Your task to perform on an android device: Search for "macbook air" on newegg, select the first entry, and add it to the cart. Image 0: 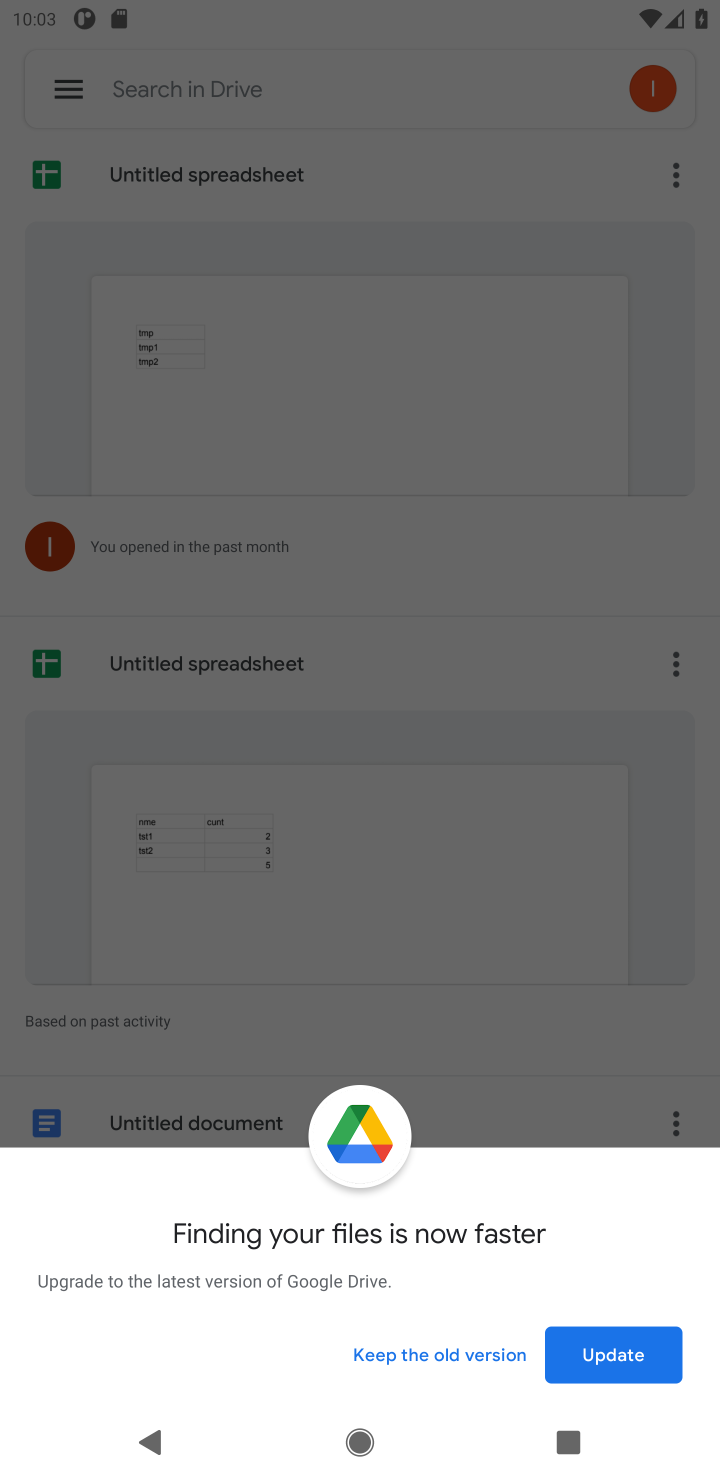
Step 0: press home button
Your task to perform on an android device: Search for "macbook air" on newegg, select the first entry, and add it to the cart. Image 1: 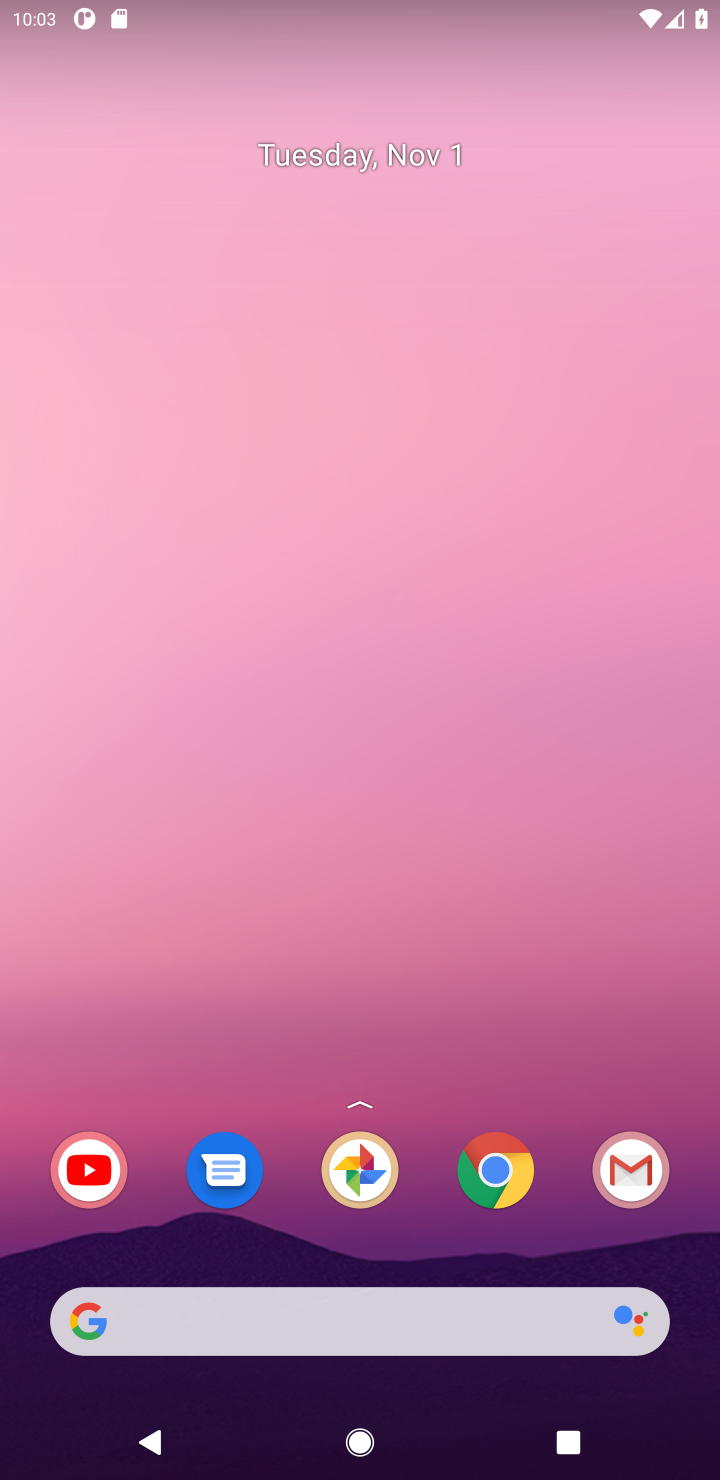
Step 1: click (510, 1180)
Your task to perform on an android device: Search for "macbook air" on newegg, select the first entry, and add it to the cart. Image 2: 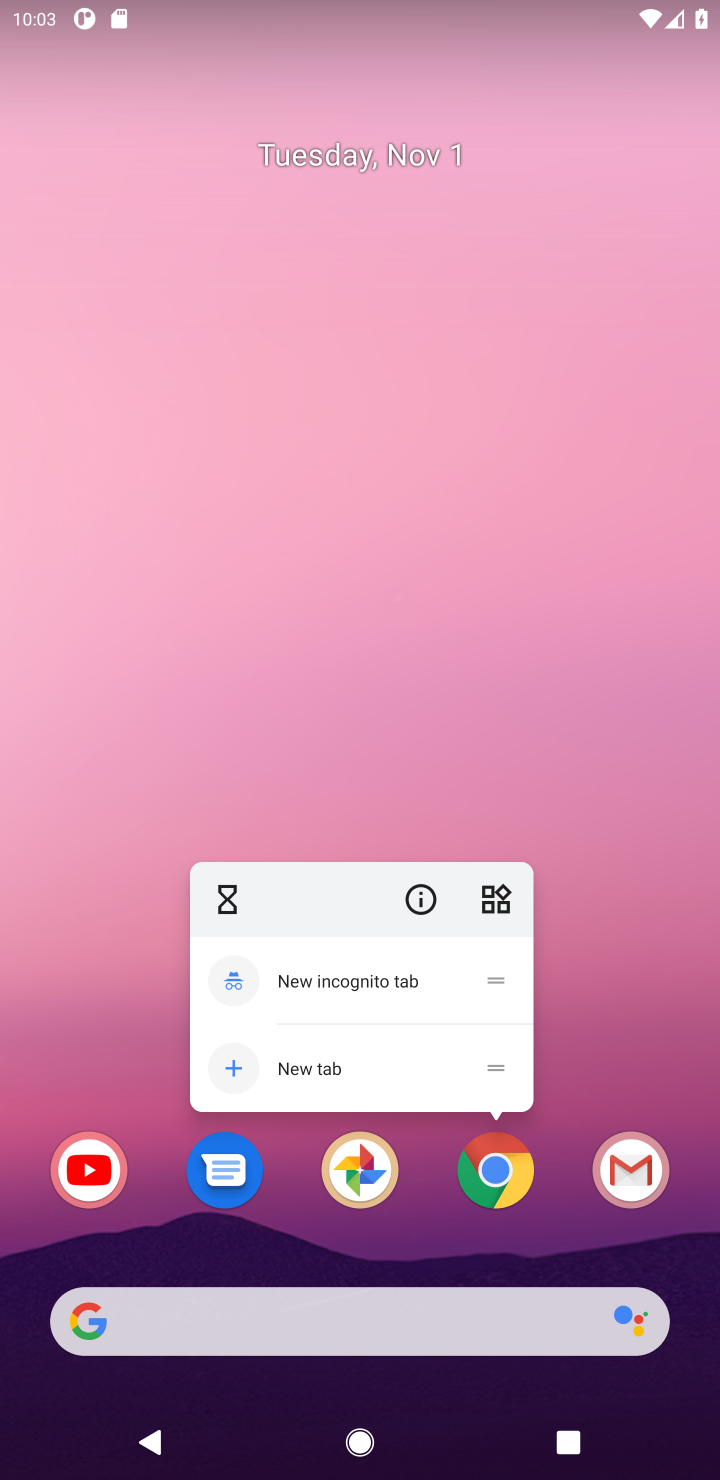
Step 2: click (490, 1181)
Your task to perform on an android device: Search for "macbook air" on newegg, select the first entry, and add it to the cart. Image 3: 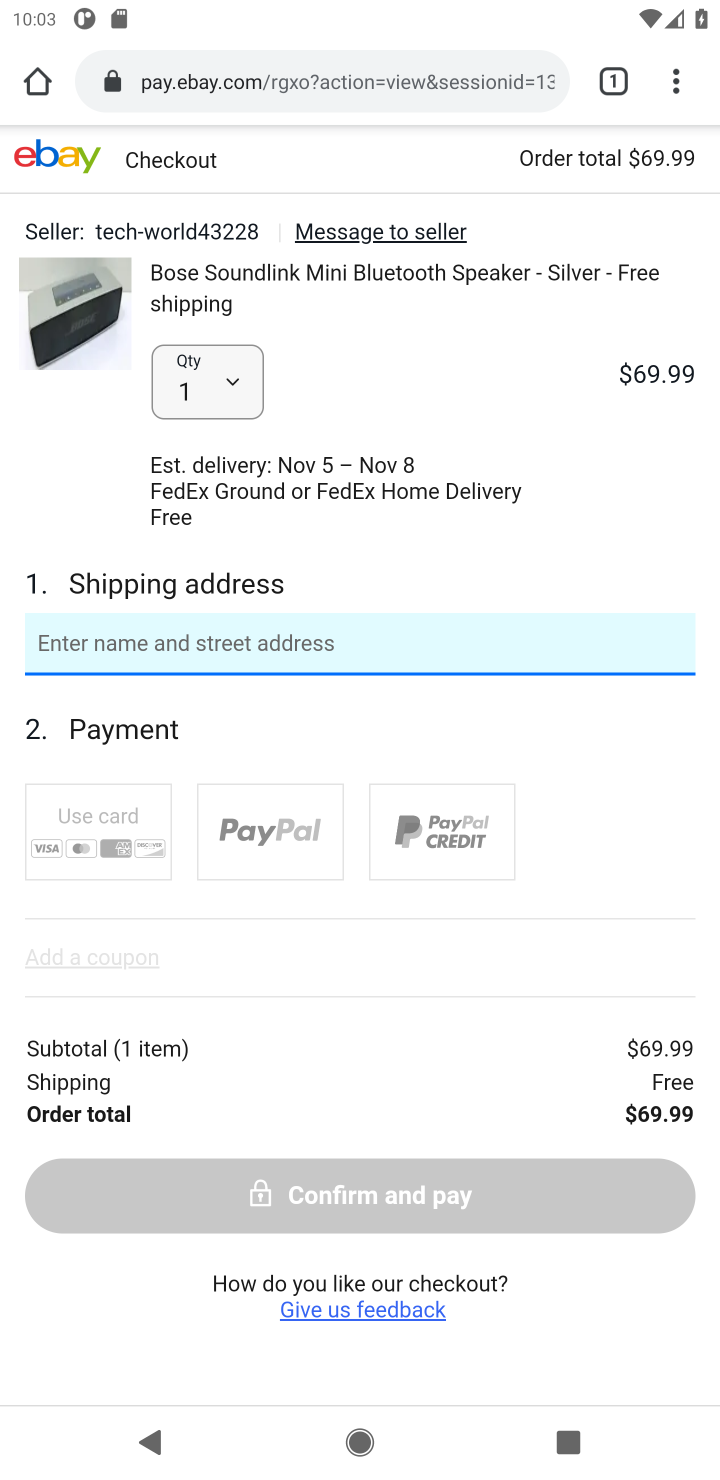
Step 3: click (258, 99)
Your task to perform on an android device: Search for "macbook air" on newegg, select the first entry, and add it to the cart. Image 4: 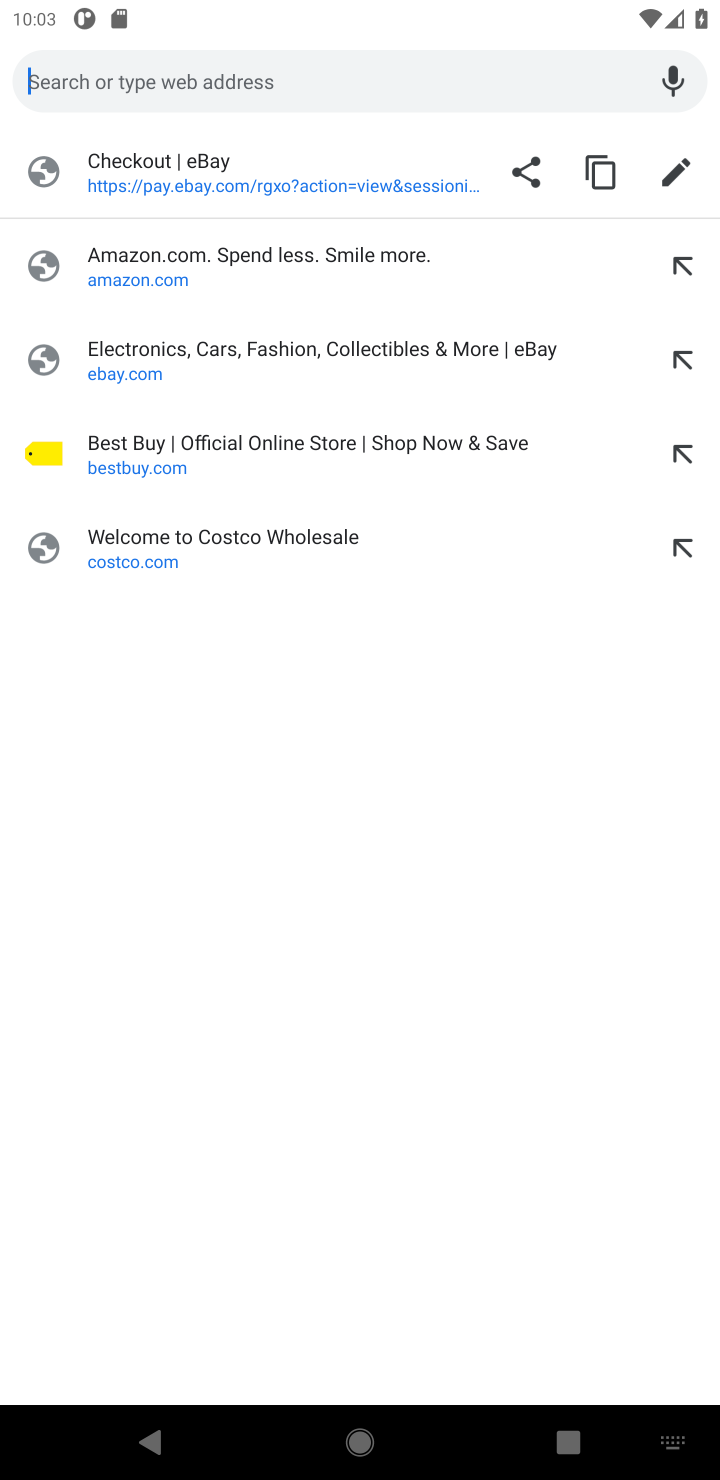
Step 4: type "newegg"
Your task to perform on an android device: Search for "macbook air" on newegg, select the first entry, and add it to the cart. Image 5: 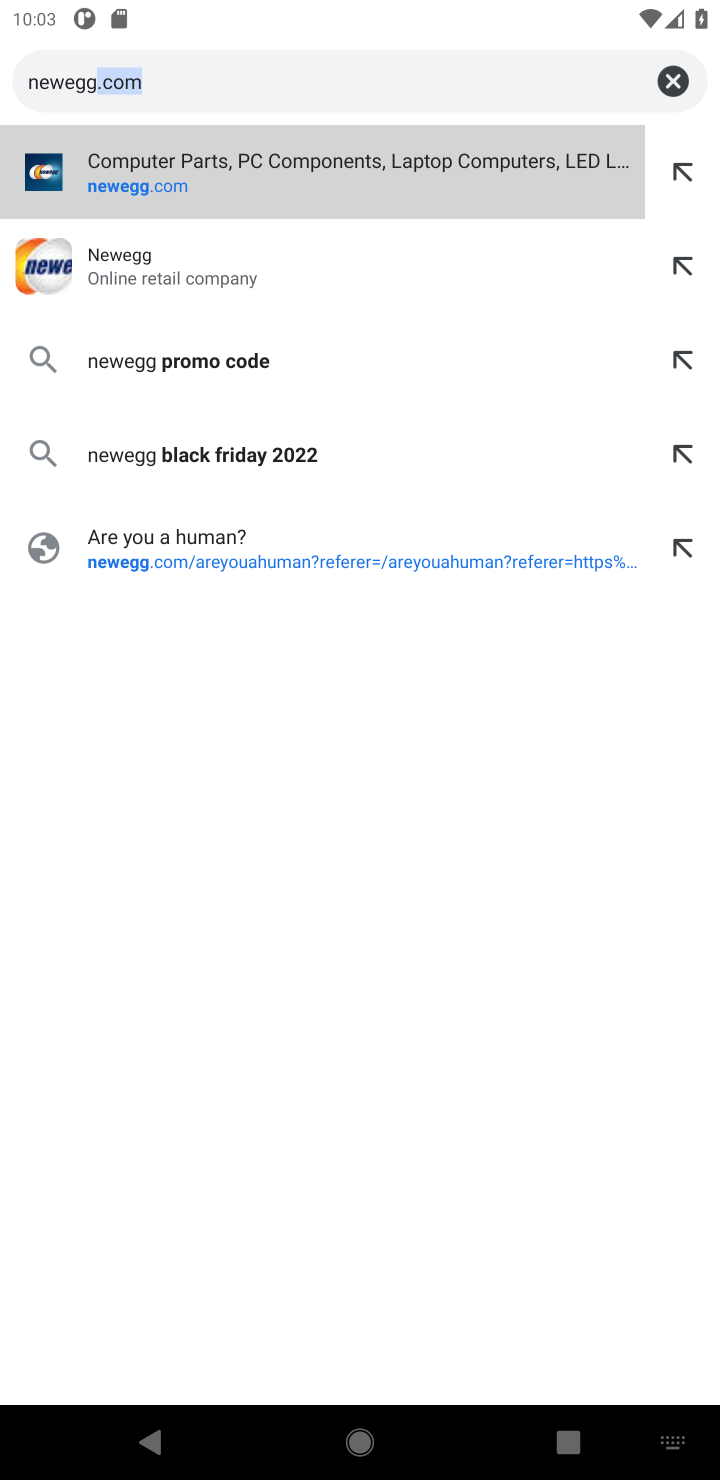
Step 5: press enter
Your task to perform on an android device: Search for "macbook air" on newegg, select the first entry, and add it to the cart. Image 6: 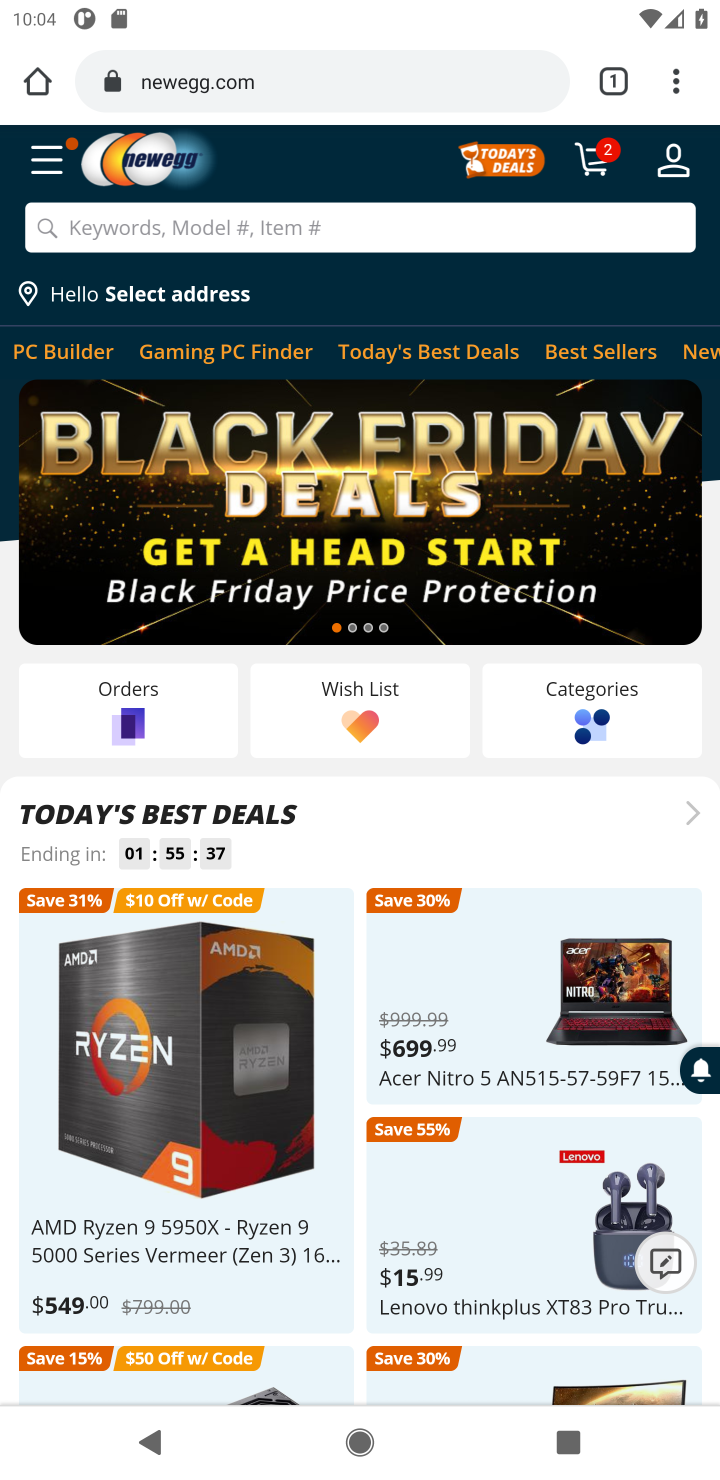
Step 6: click (398, 219)
Your task to perform on an android device: Search for "macbook air" on newegg, select the first entry, and add it to the cart. Image 7: 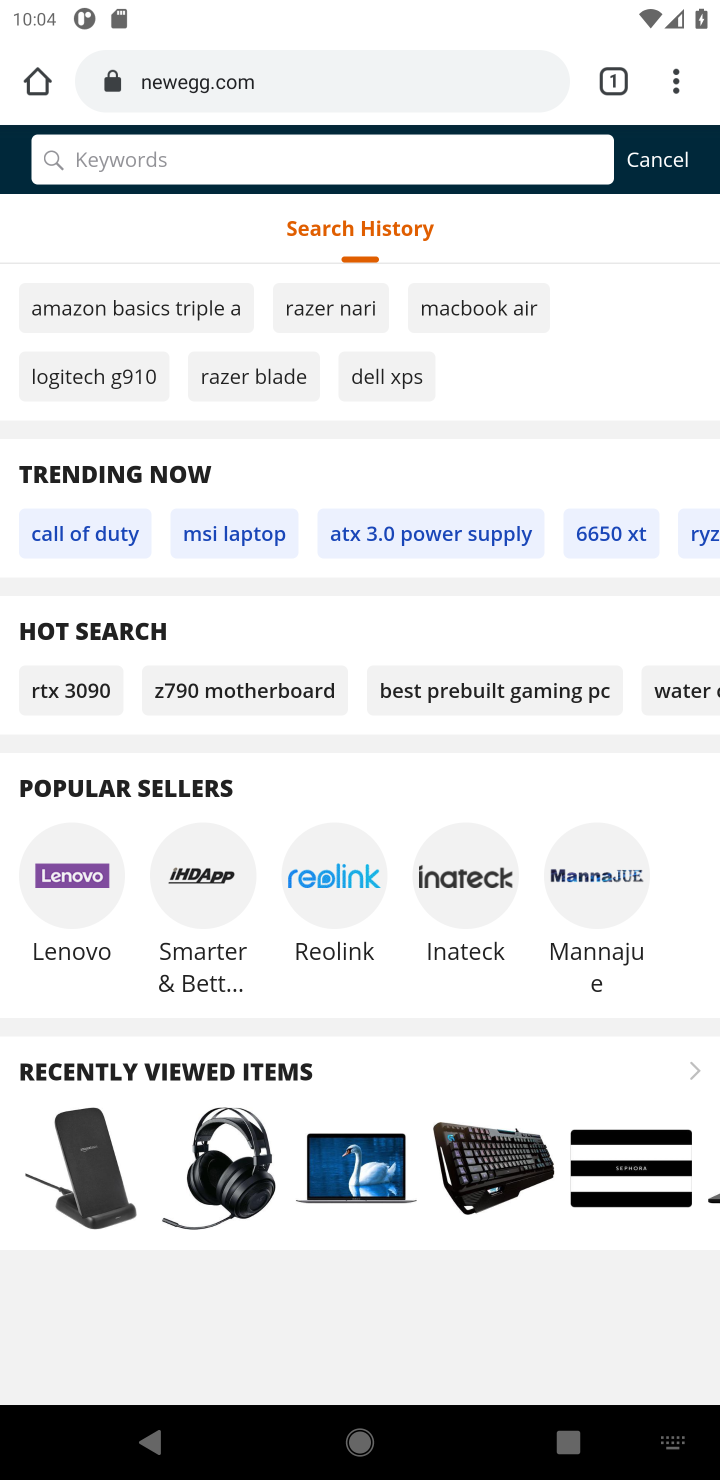
Step 7: type "macbook air"
Your task to perform on an android device: Search for "macbook air" on newegg, select the first entry, and add it to the cart. Image 8: 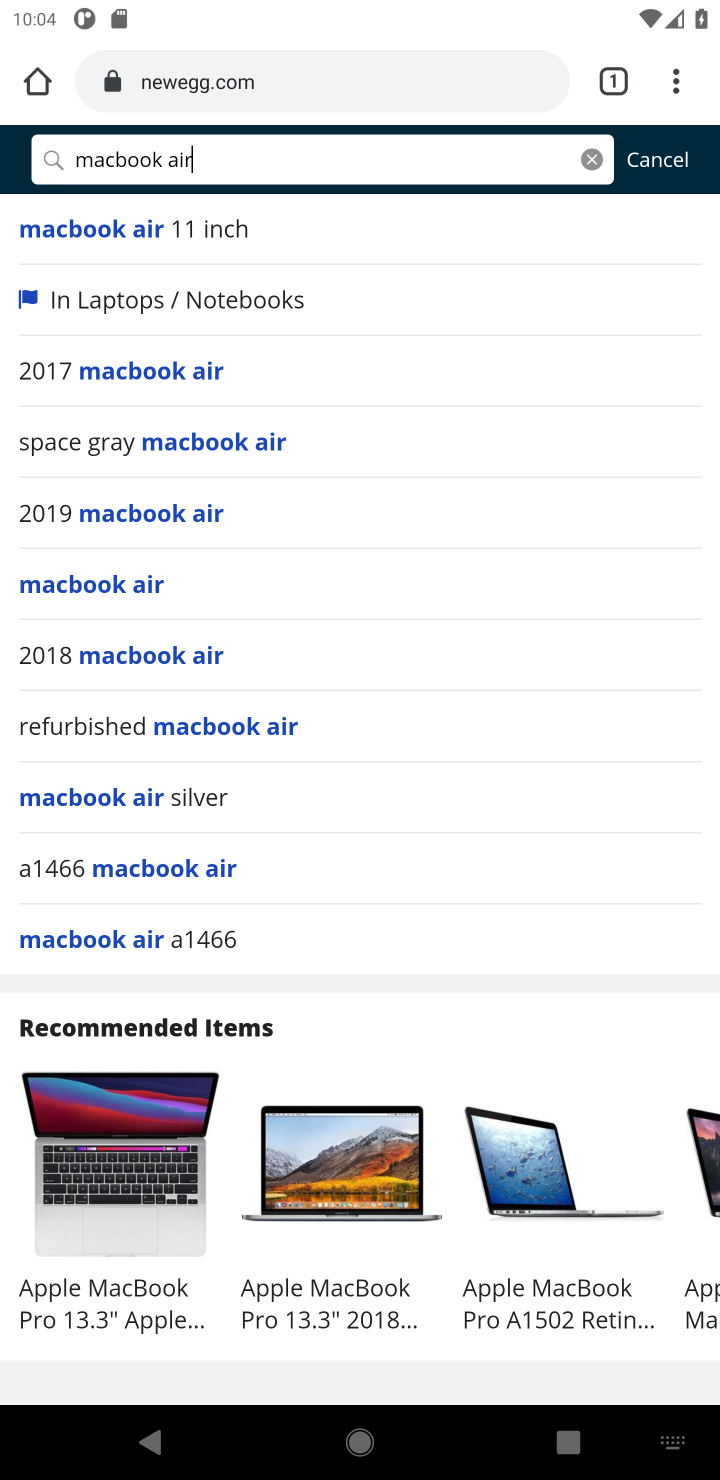
Step 8: press enter
Your task to perform on an android device: Search for "macbook air" on newegg, select the first entry, and add it to the cart. Image 9: 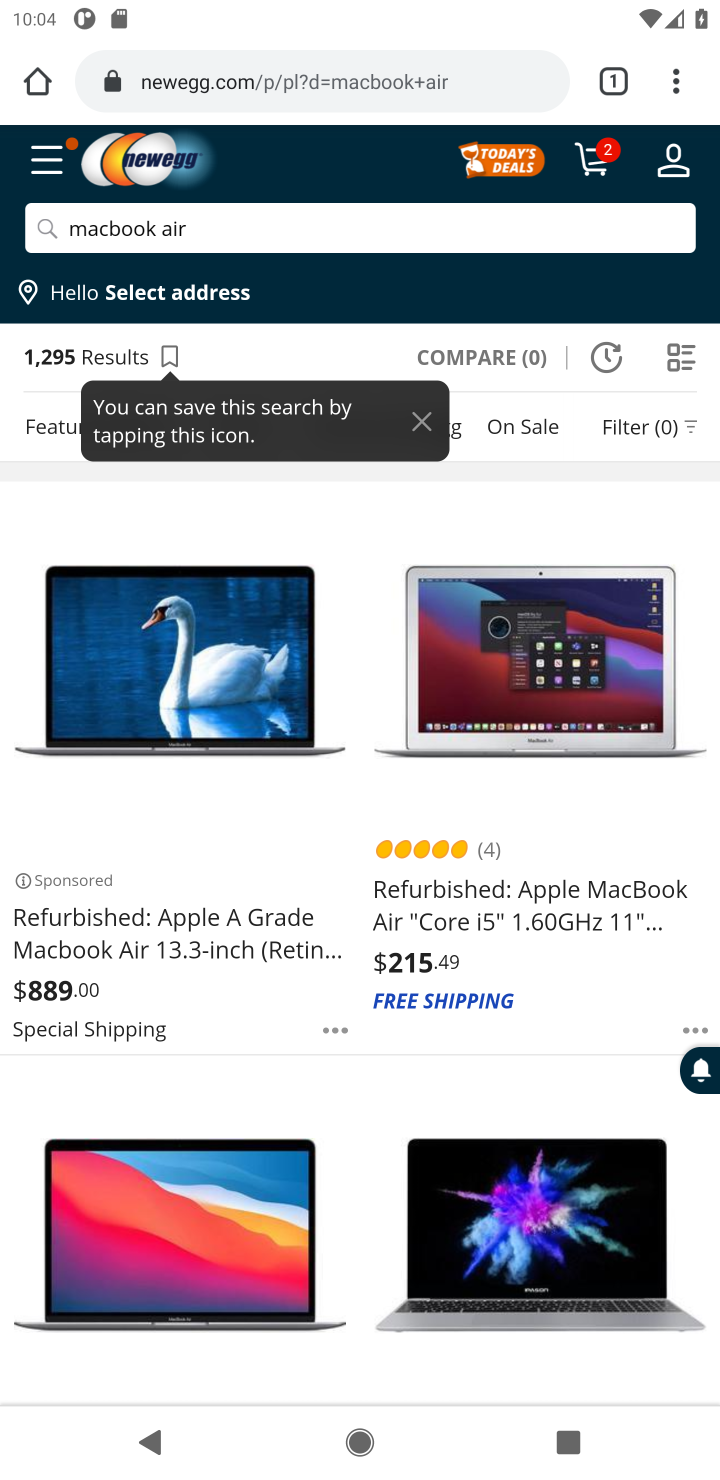
Step 9: click (201, 935)
Your task to perform on an android device: Search for "macbook air" on newegg, select the first entry, and add it to the cart. Image 10: 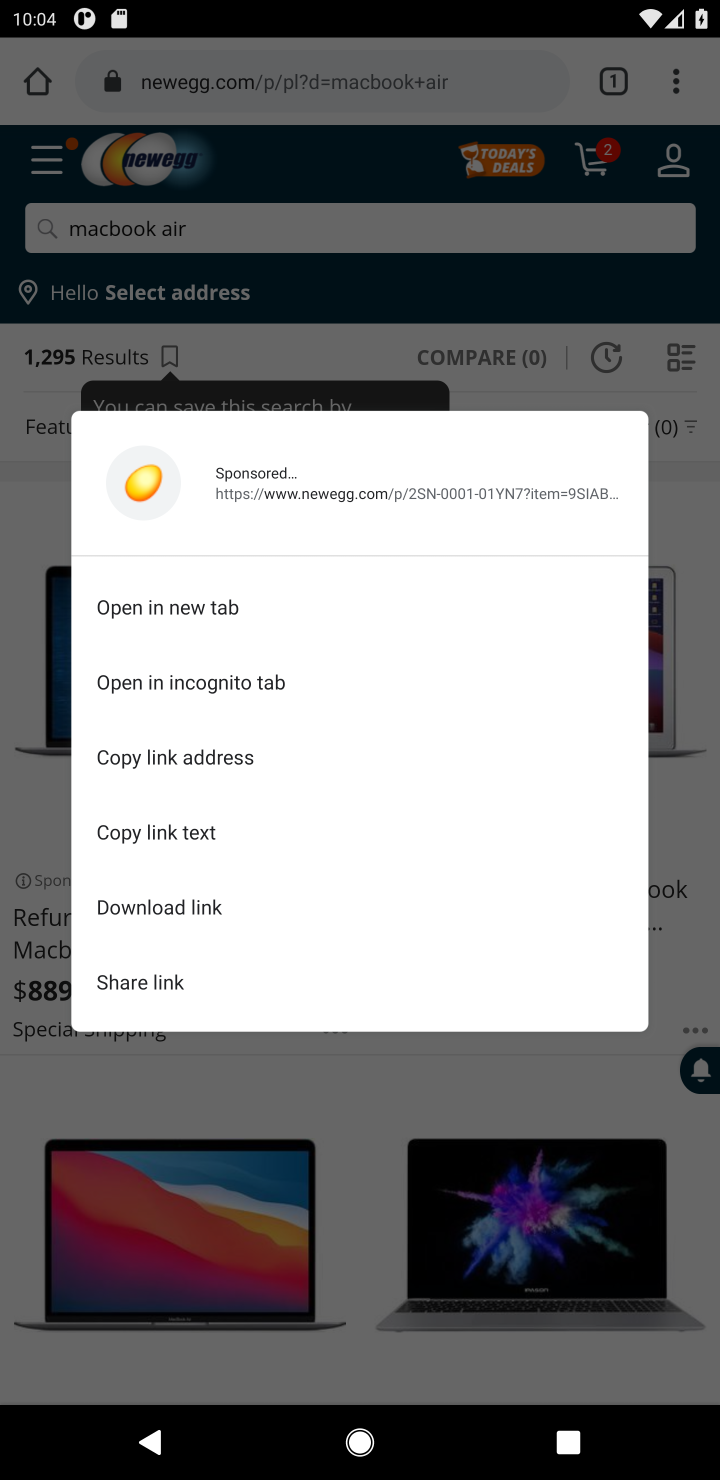
Step 10: click (22, 945)
Your task to perform on an android device: Search for "macbook air" on newegg, select the first entry, and add it to the cart. Image 11: 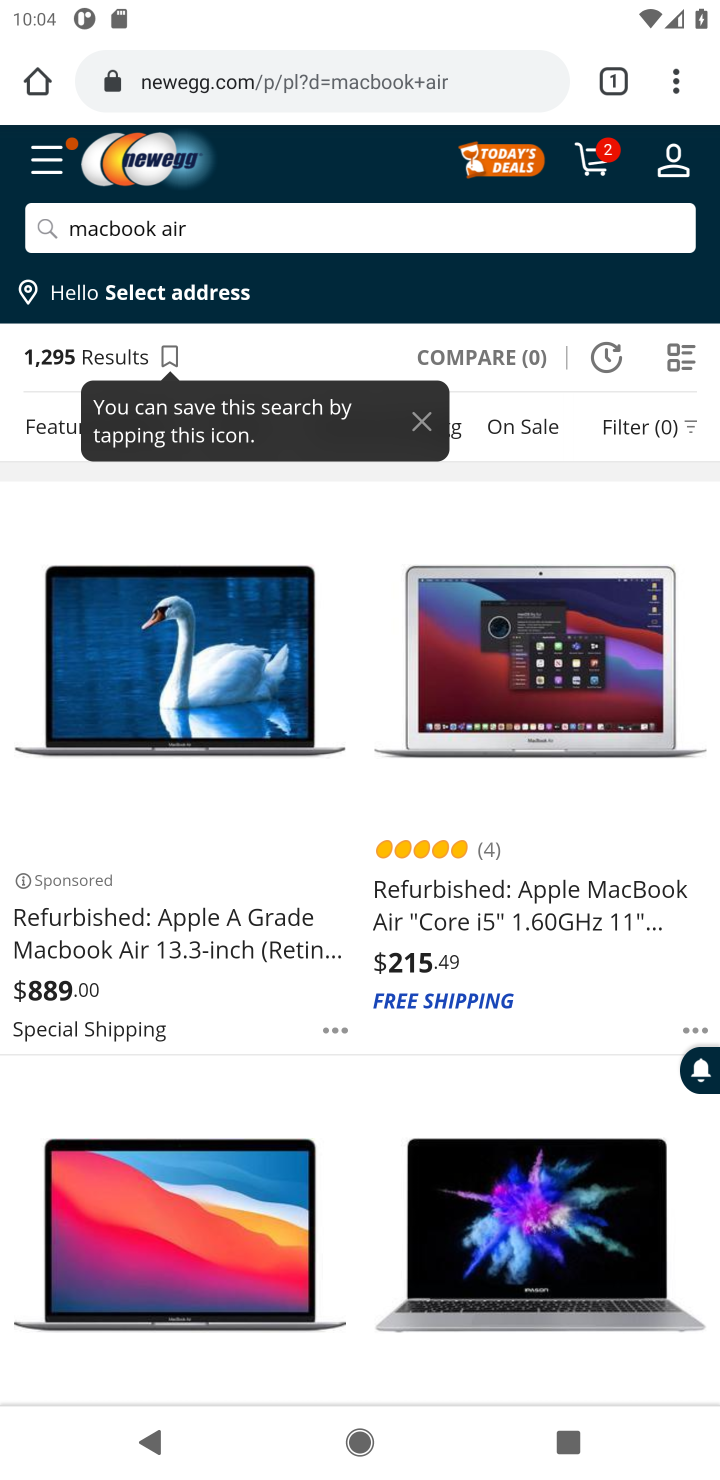
Step 11: click (166, 937)
Your task to perform on an android device: Search for "macbook air" on newegg, select the first entry, and add it to the cart. Image 12: 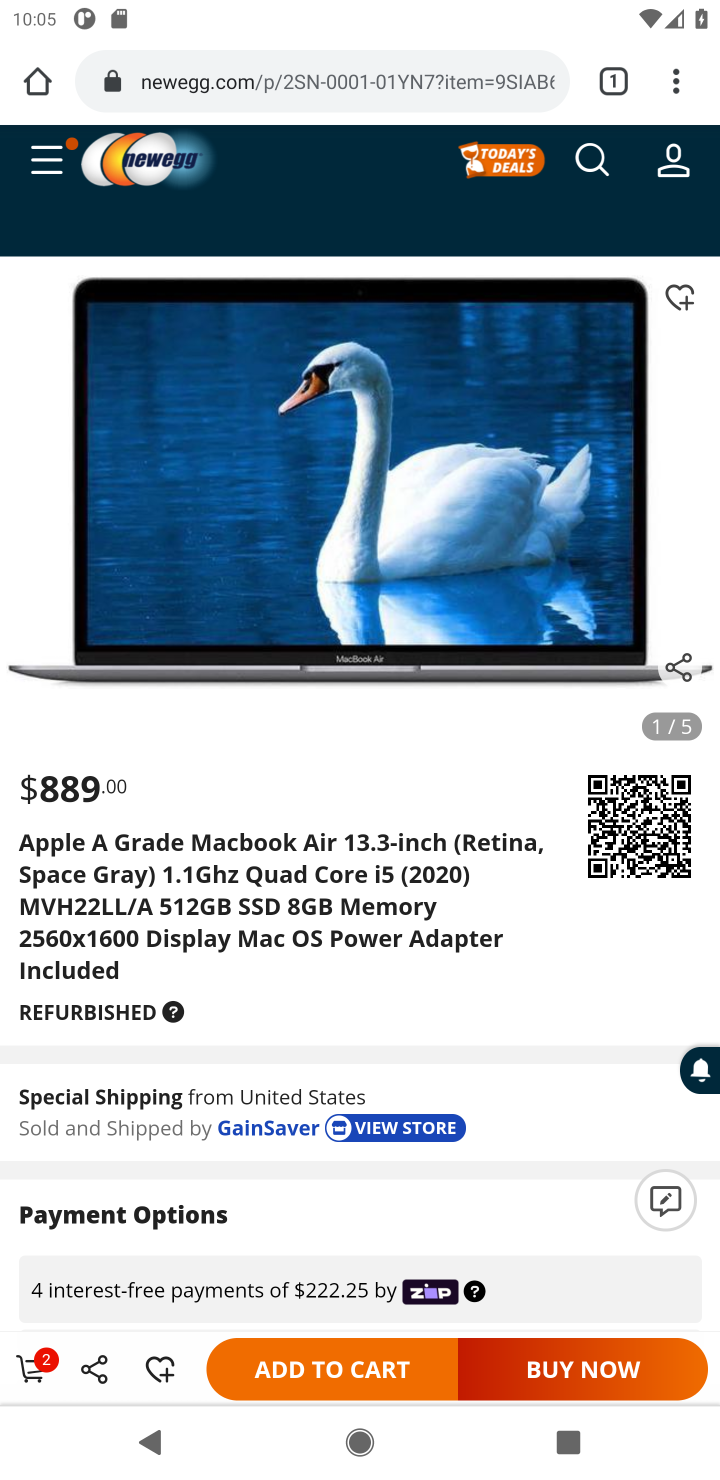
Step 12: click (398, 1370)
Your task to perform on an android device: Search for "macbook air" on newegg, select the first entry, and add it to the cart. Image 13: 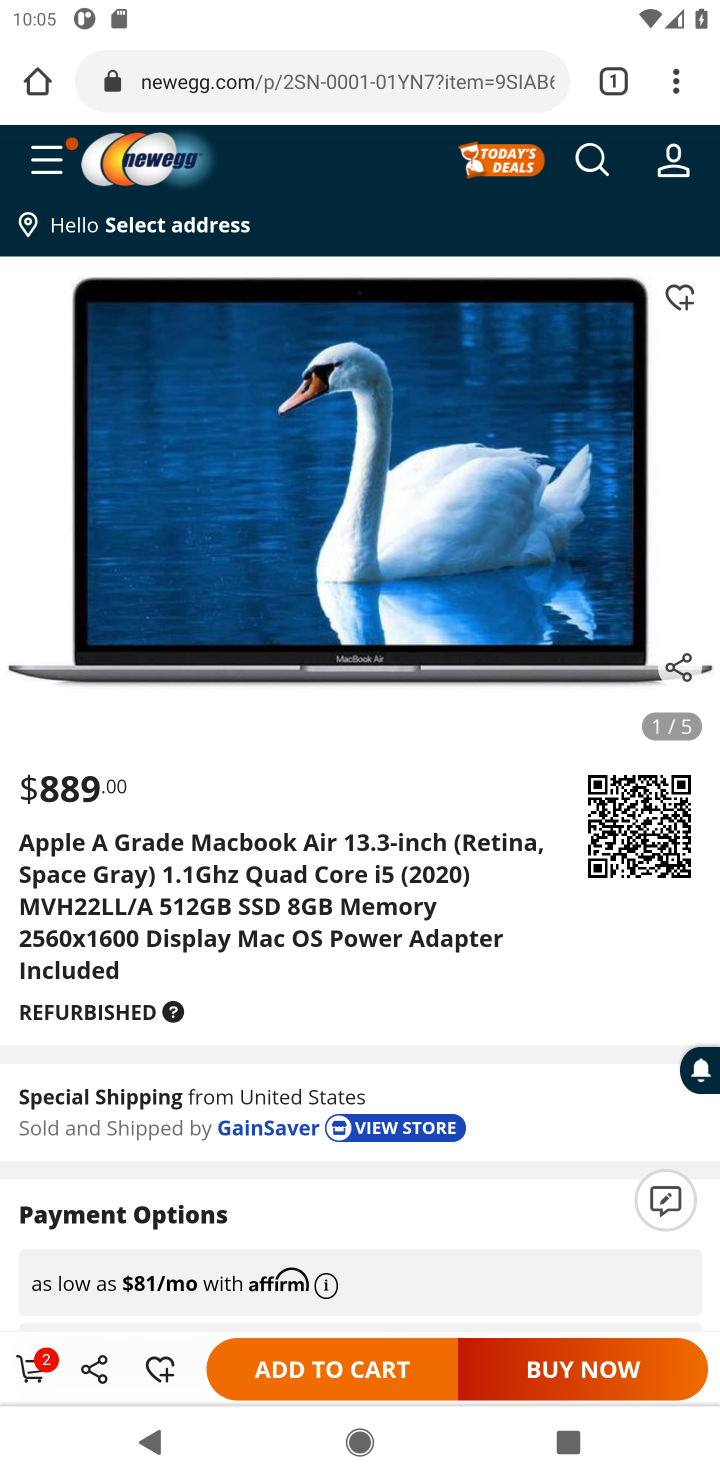
Step 13: click (356, 1376)
Your task to perform on an android device: Search for "macbook air" on newegg, select the first entry, and add it to the cart. Image 14: 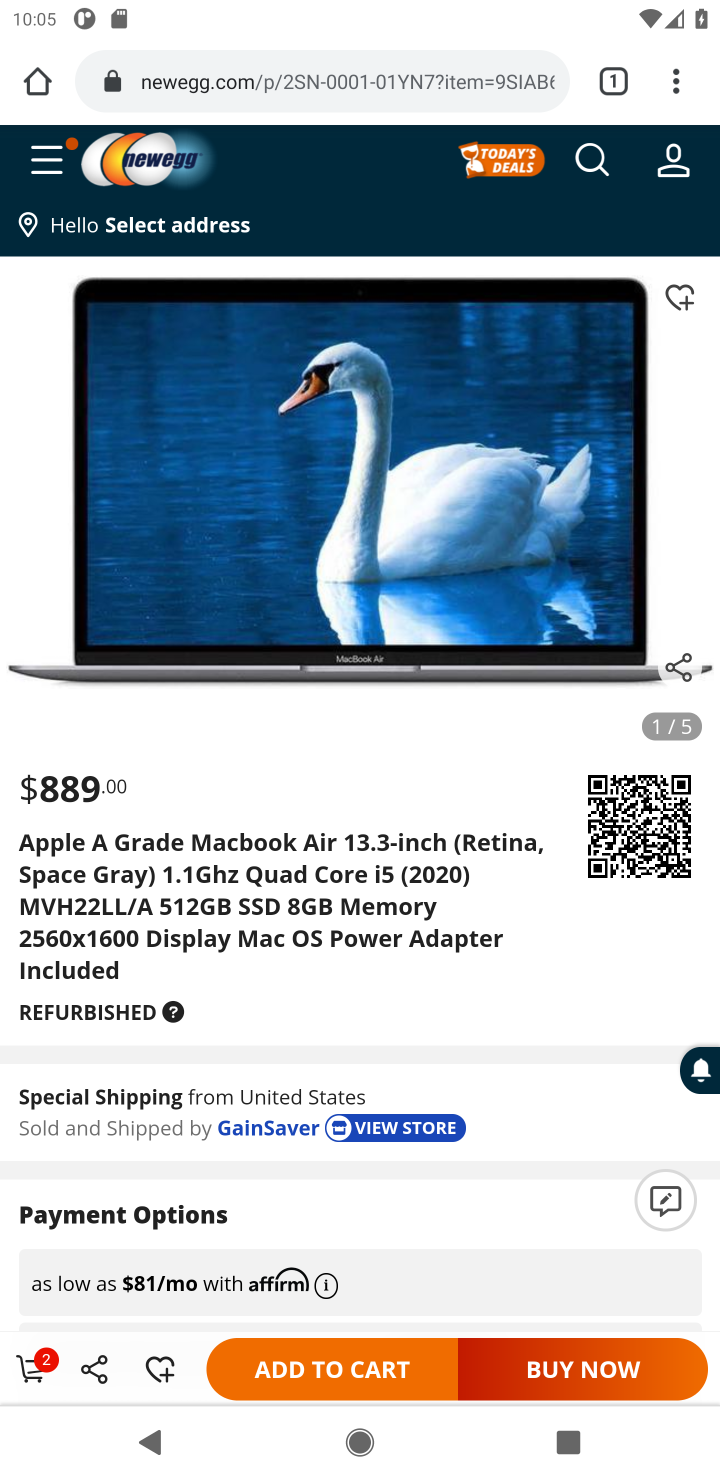
Step 14: drag from (435, 1236) to (400, 934)
Your task to perform on an android device: Search for "macbook air" on newegg, select the first entry, and add it to the cart. Image 15: 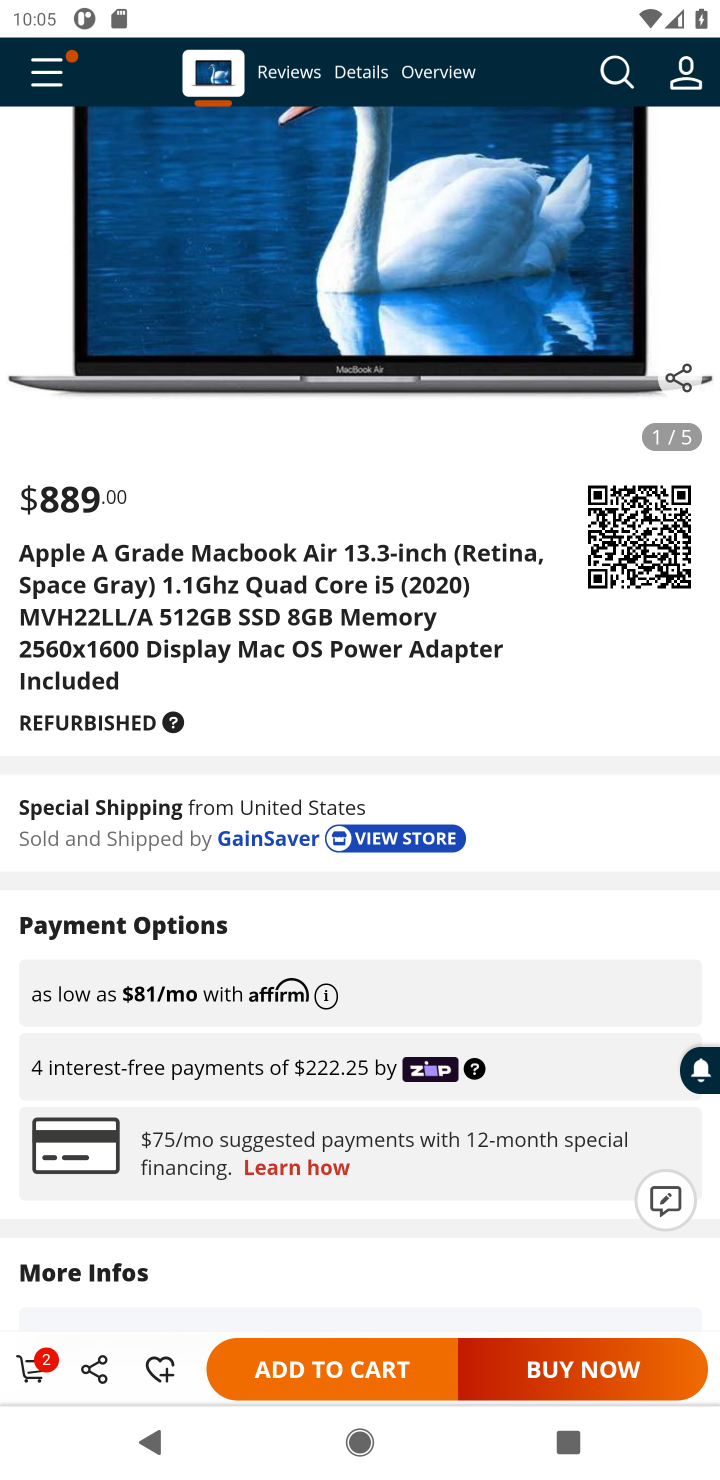
Step 15: click (353, 1370)
Your task to perform on an android device: Search for "macbook air" on newegg, select the first entry, and add it to the cart. Image 16: 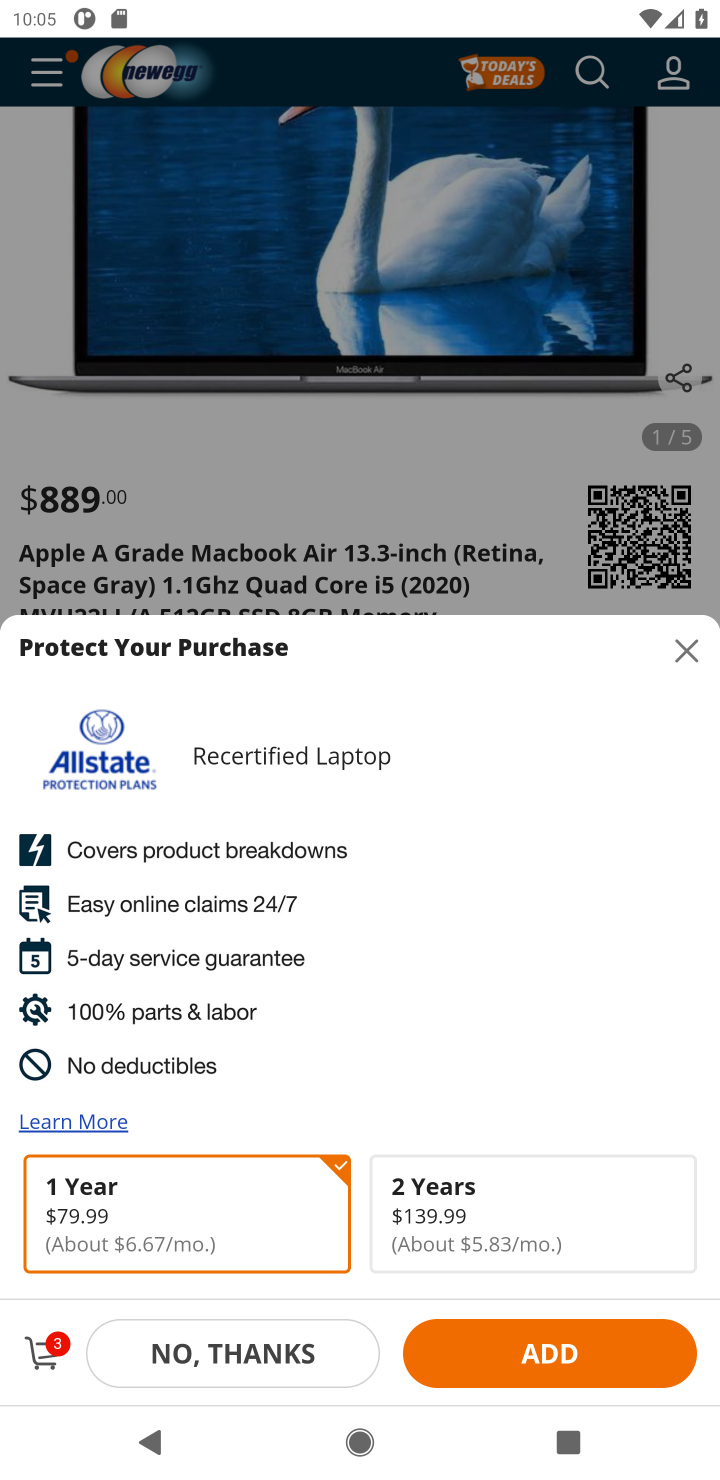
Step 16: click (201, 1349)
Your task to perform on an android device: Search for "macbook air" on newegg, select the first entry, and add it to the cart. Image 17: 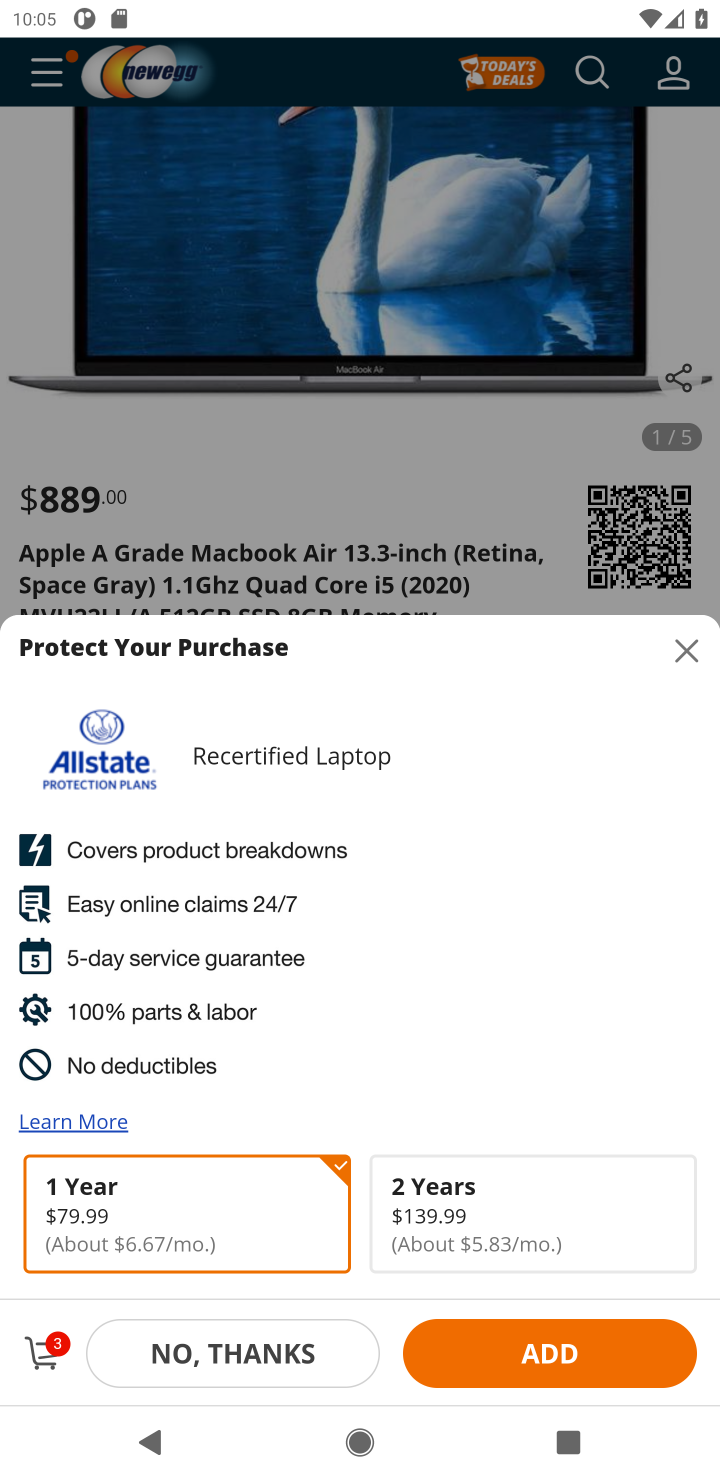
Step 17: task complete